Your task to perform on an android device: Go to accessibility settings Image 0: 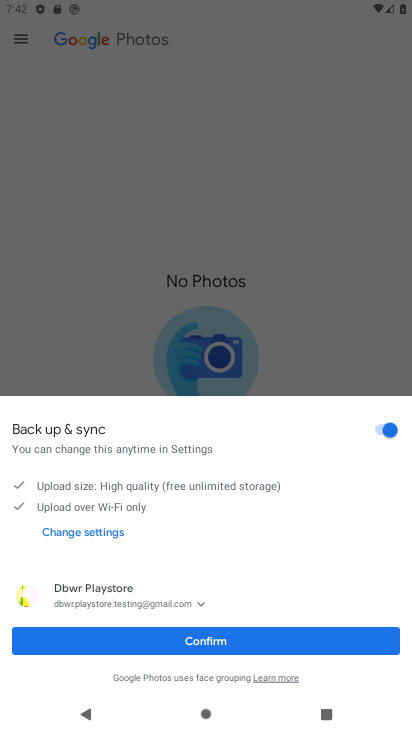
Step 0: click (216, 642)
Your task to perform on an android device: Go to accessibility settings Image 1: 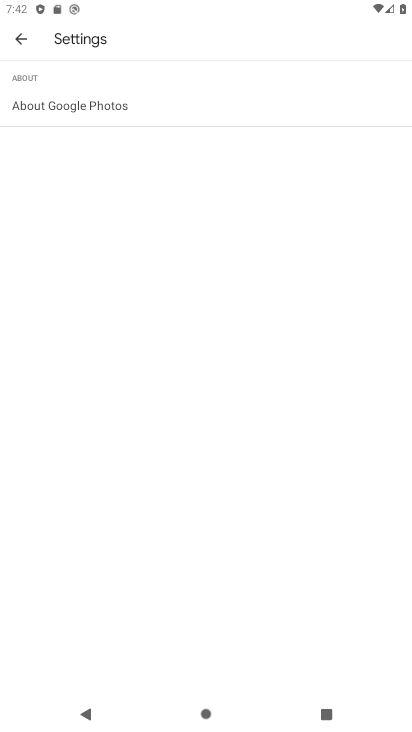
Step 1: press home button
Your task to perform on an android device: Go to accessibility settings Image 2: 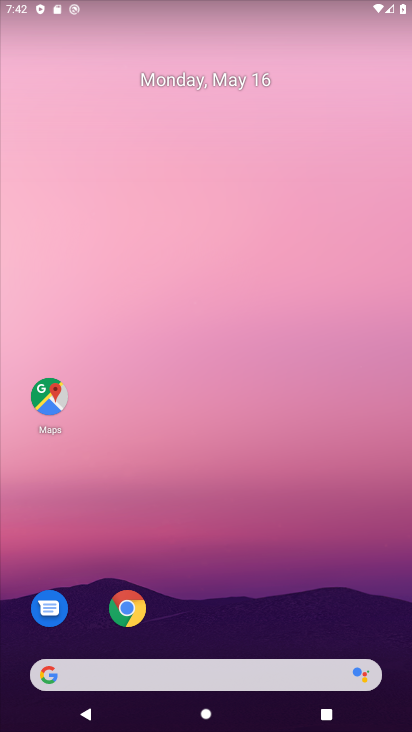
Step 2: drag from (15, 662) to (349, 55)
Your task to perform on an android device: Go to accessibility settings Image 3: 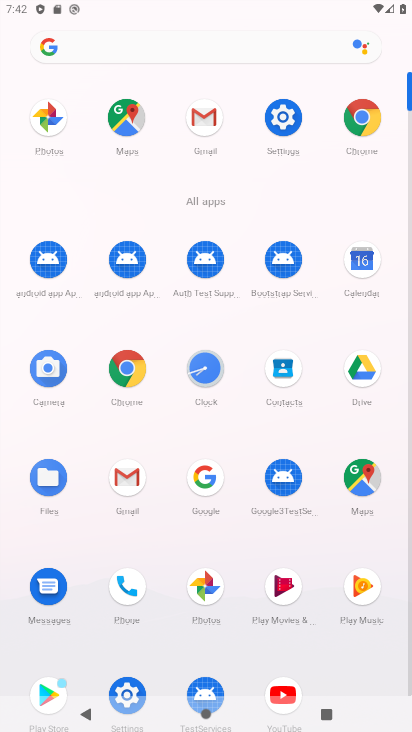
Step 3: click (361, 112)
Your task to perform on an android device: Go to accessibility settings Image 4: 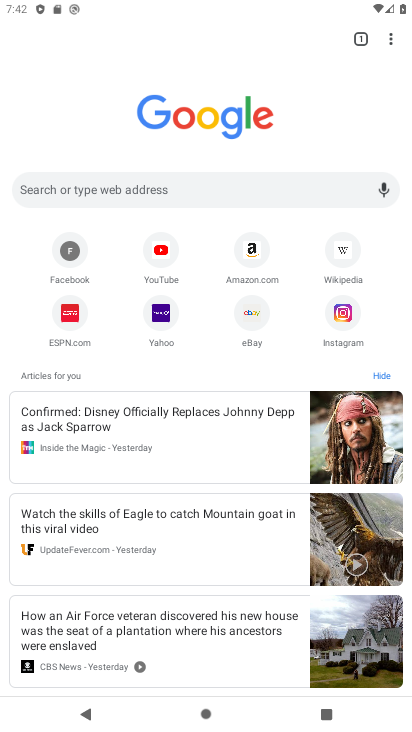
Step 4: click (391, 34)
Your task to perform on an android device: Go to accessibility settings Image 5: 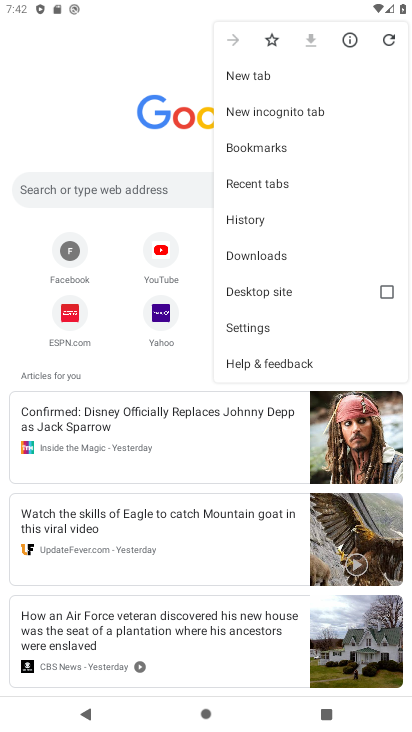
Step 5: click (248, 332)
Your task to perform on an android device: Go to accessibility settings Image 6: 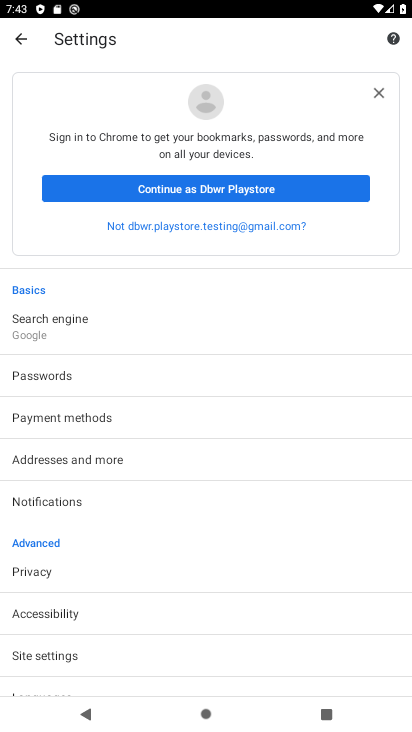
Step 6: click (72, 608)
Your task to perform on an android device: Go to accessibility settings Image 7: 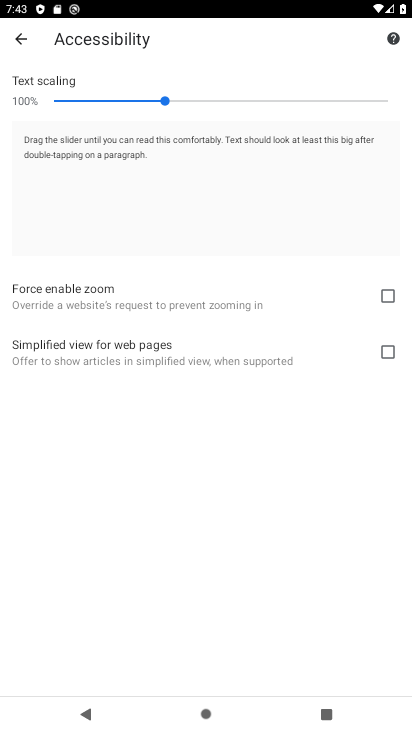
Step 7: task complete